Your task to perform on an android device: When is my next appointment? Image 0: 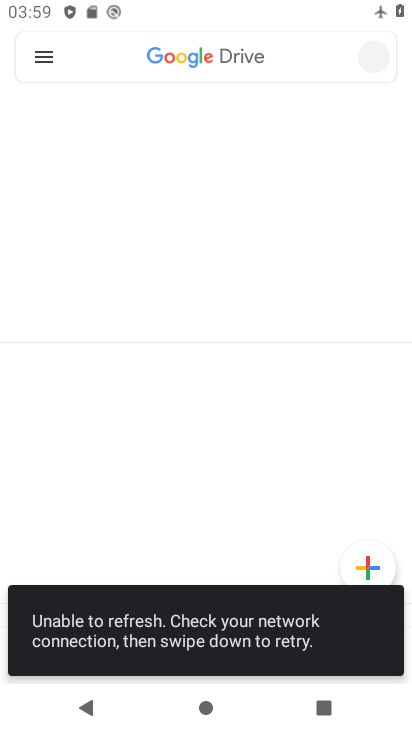
Step 0: click (376, 591)
Your task to perform on an android device: When is my next appointment? Image 1: 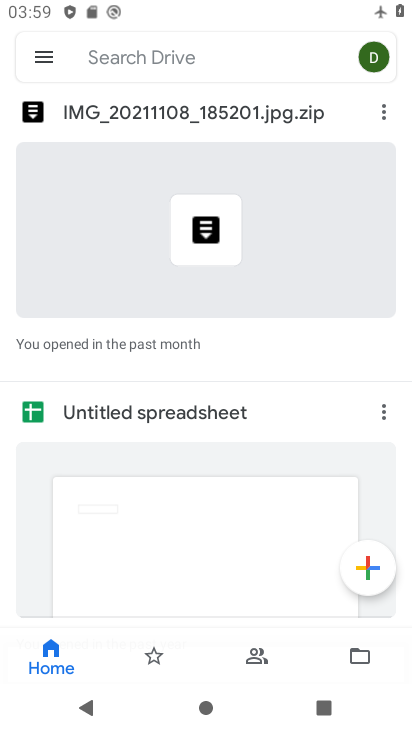
Step 1: press home button
Your task to perform on an android device: When is my next appointment? Image 2: 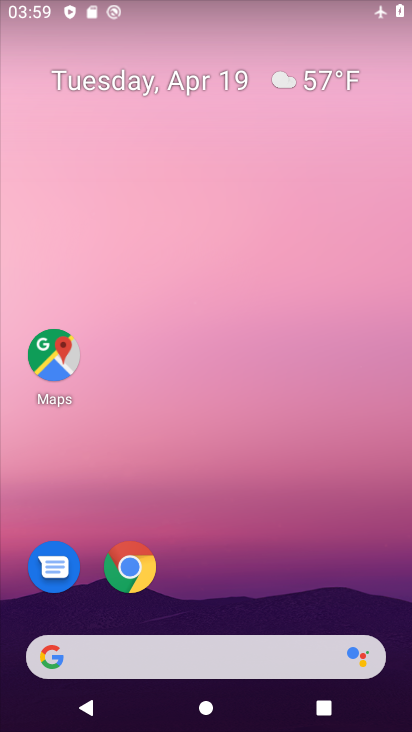
Step 2: drag from (322, 599) to (330, 115)
Your task to perform on an android device: When is my next appointment? Image 3: 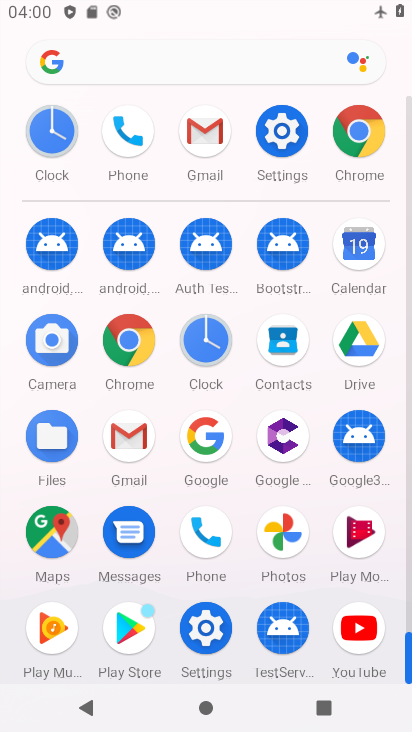
Step 3: click (349, 258)
Your task to perform on an android device: When is my next appointment? Image 4: 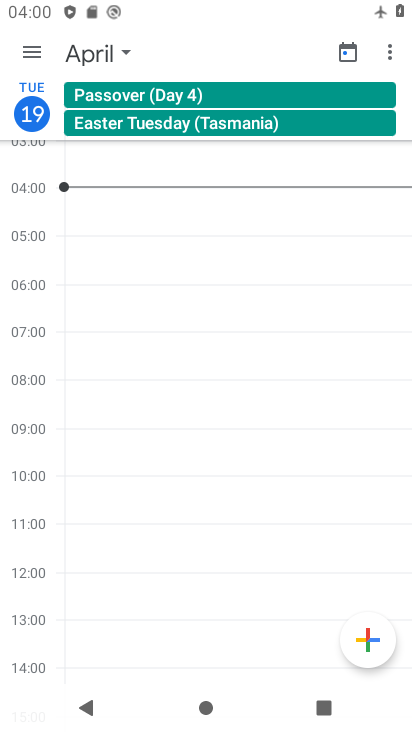
Step 4: click (31, 53)
Your task to perform on an android device: When is my next appointment? Image 5: 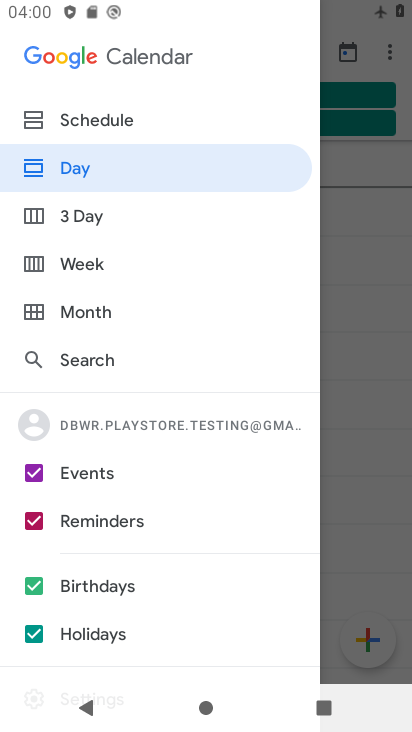
Step 5: click (88, 522)
Your task to perform on an android device: When is my next appointment? Image 6: 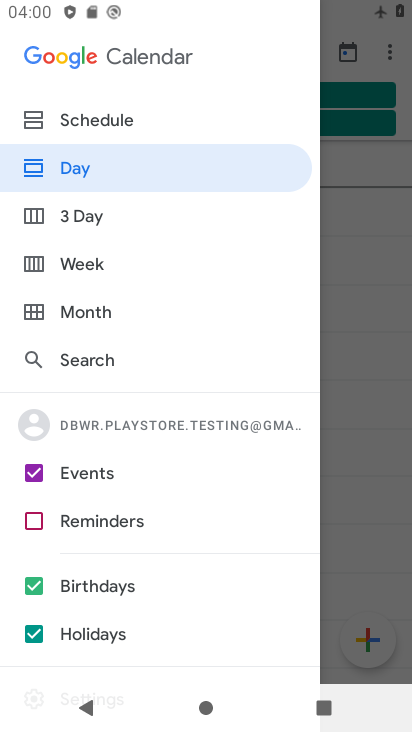
Step 6: click (41, 585)
Your task to perform on an android device: When is my next appointment? Image 7: 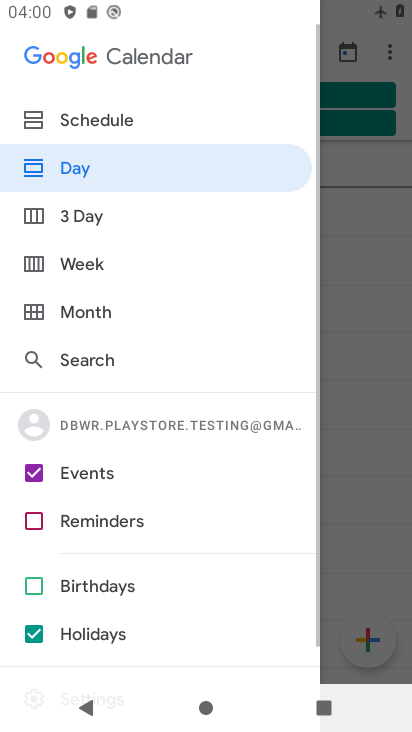
Step 7: click (33, 632)
Your task to perform on an android device: When is my next appointment? Image 8: 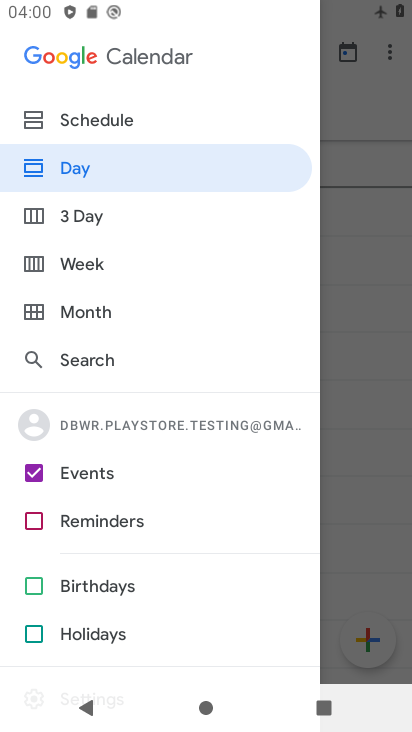
Step 8: click (385, 249)
Your task to perform on an android device: When is my next appointment? Image 9: 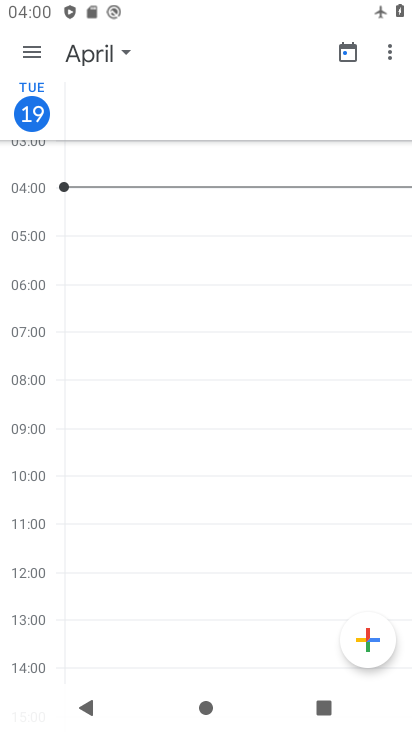
Step 9: click (124, 51)
Your task to perform on an android device: When is my next appointment? Image 10: 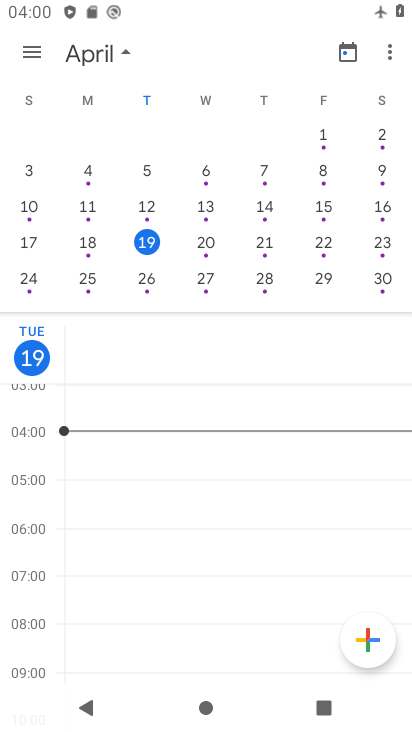
Step 10: task complete